Your task to perform on an android device: Open the downloads Image 0: 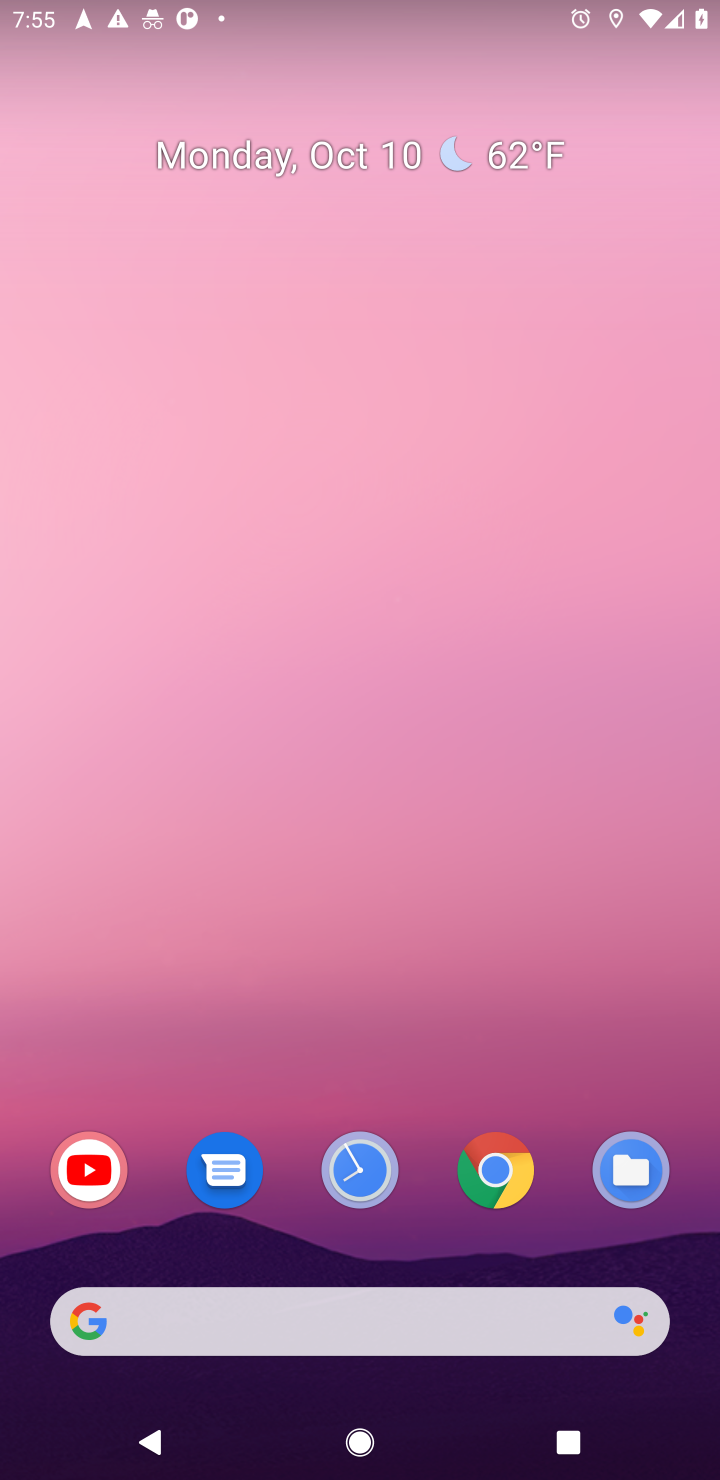
Step 0: drag from (363, 1010) to (323, 10)
Your task to perform on an android device: Open the downloads Image 1: 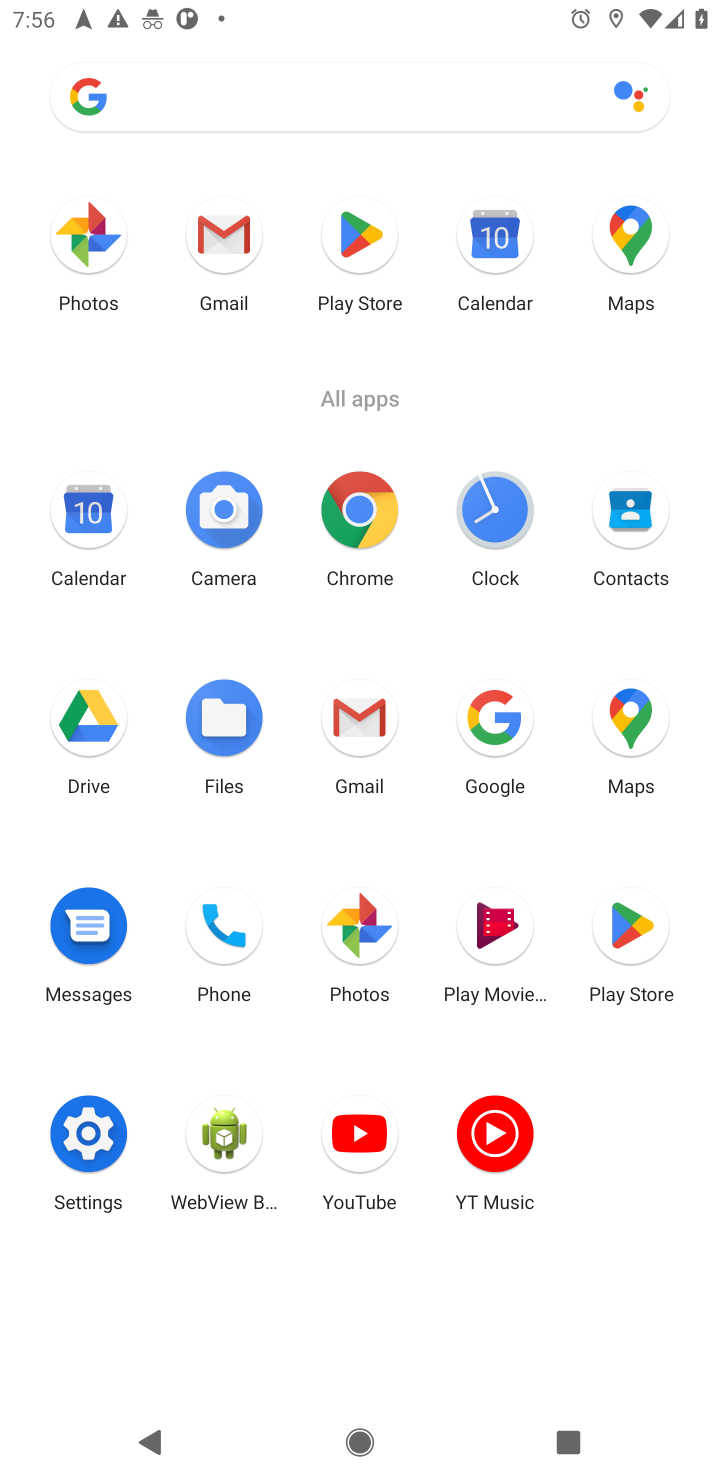
Step 1: click (227, 712)
Your task to perform on an android device: Open the downloads Image 2: 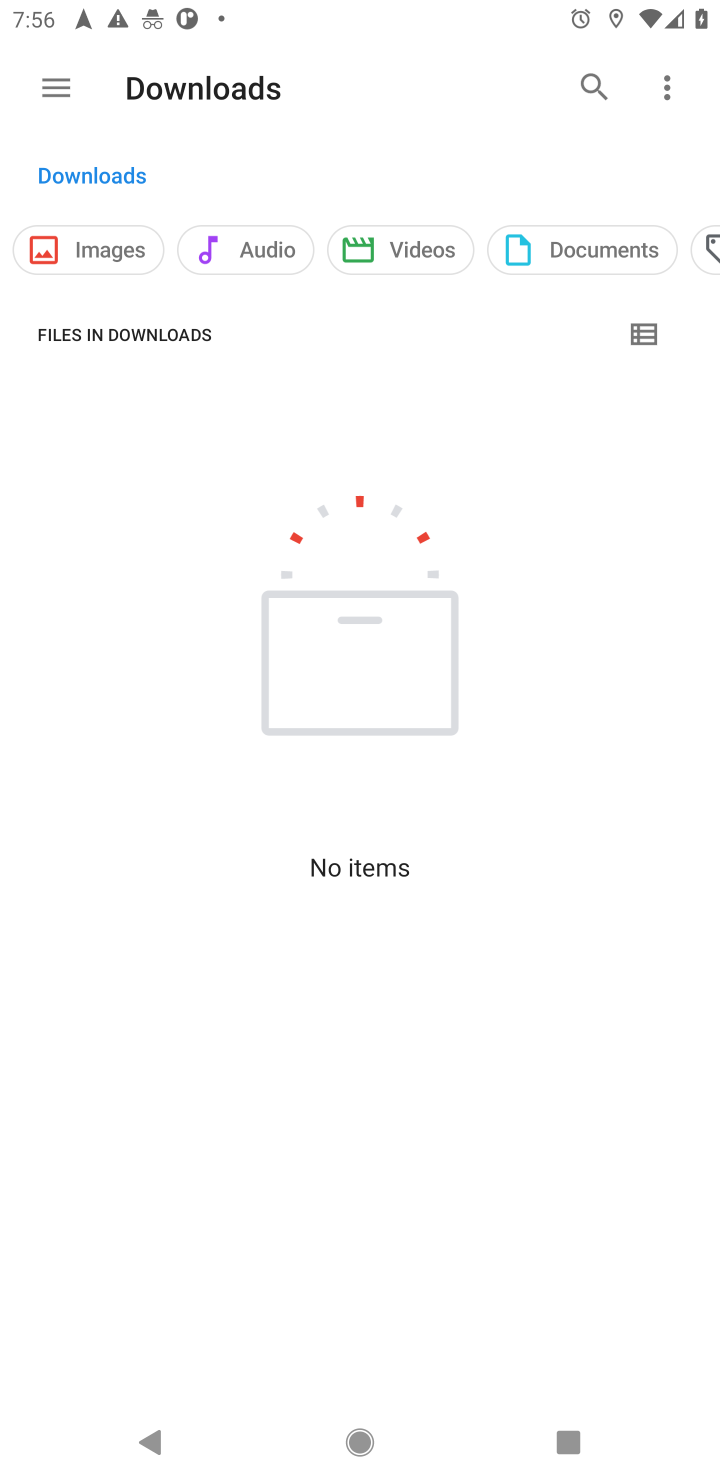
Step 2: task complete